Your task to perform on an android device: toggle location history Image 0: 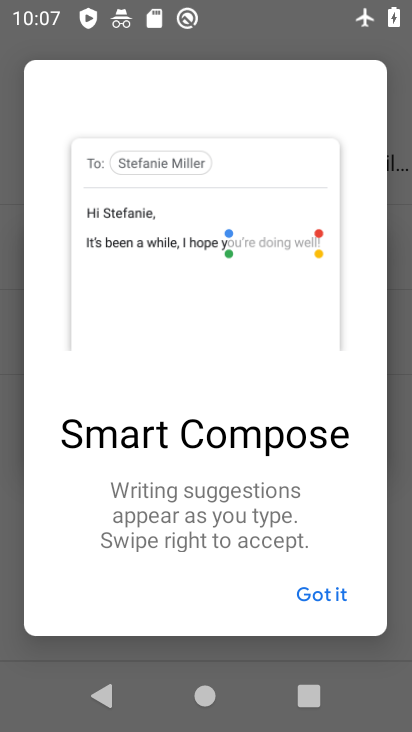
Step 0: press home button
Your task to perform on an android device: toggle location history Image 1: 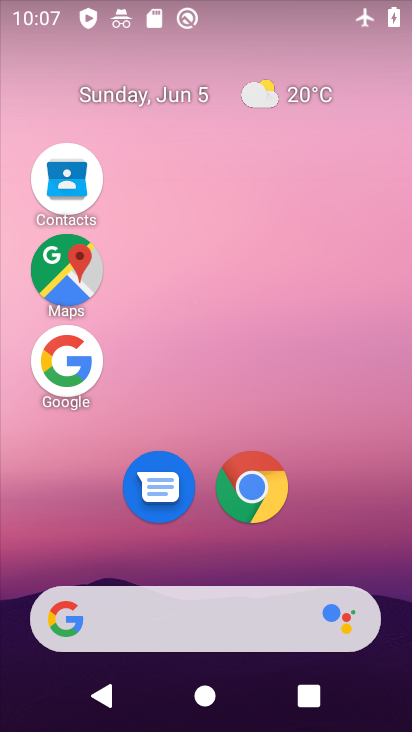
Step 1: drag from (207, 573) to (228, 3)
Your task to perform on an android device: toggle location history Image 2: 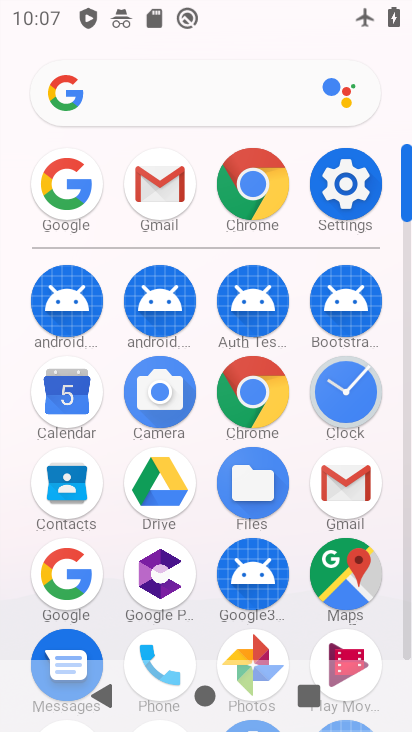
Step 2: click (334, 204)
Your task to perform on an android device: toggle location history Image 3: 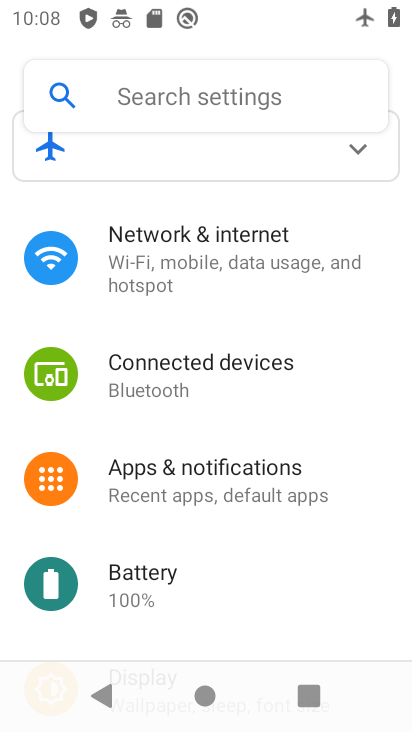
Step 3: drag from (191, 504) to (236, 99)
Your task to perform on an android device: toggle location history Image 4: 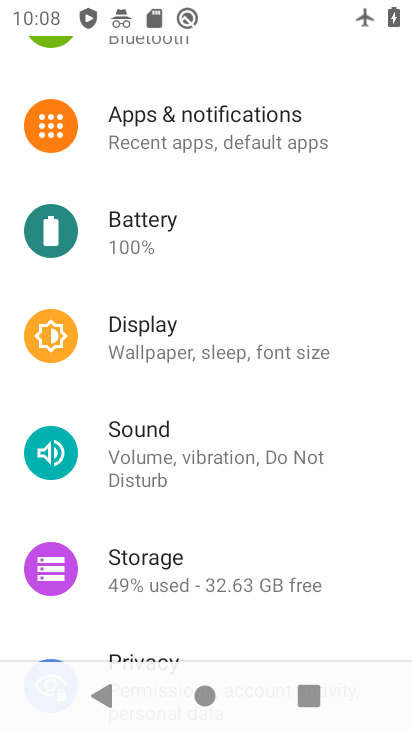
Step 4: drag from (204, 479) to (231, 107)
Your task to perform on an android device: toggle location history Image 5: 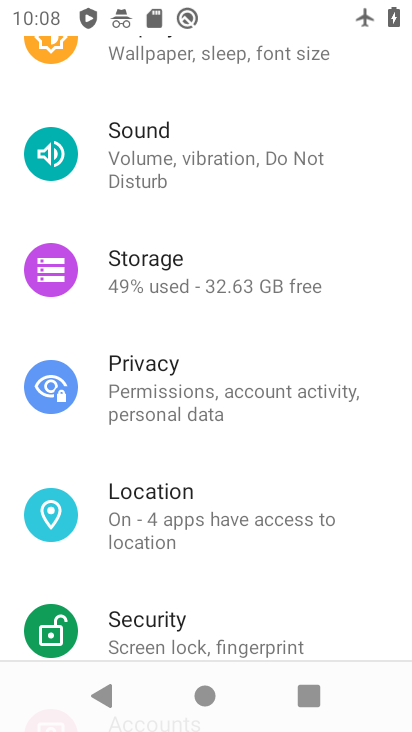
Step 5: click (180, 514)
Your task to perform on an android device: toggle location history Image 6: 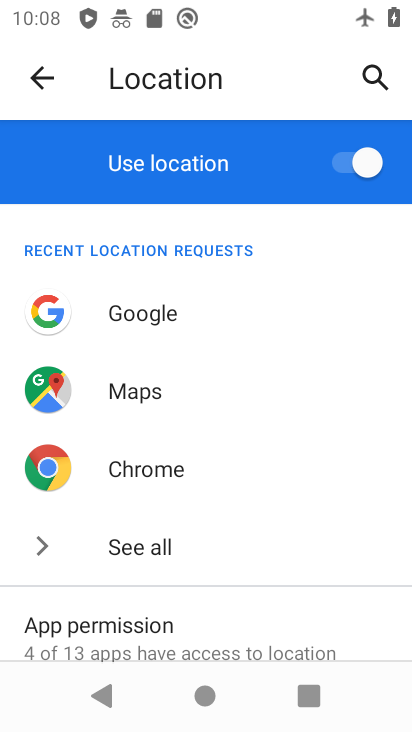
Step 6: drag from (236, 632) to (185, 301)
Your task to perform on an android device: toggle location history Image 7: 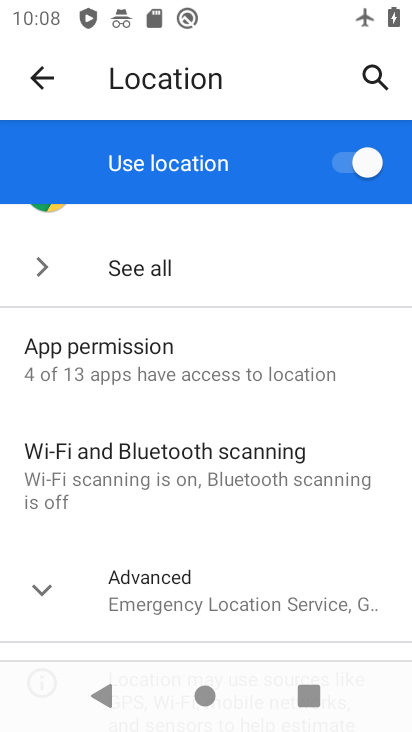
Step 7: click (238, 579)
Your task to perform on an android device: toggle location history Image 8: 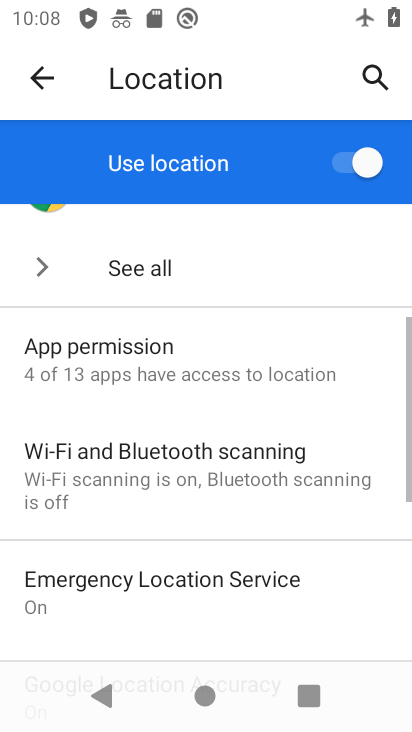
Step 8: drag from (236, 571) to (304, 41)
Your task to perform on an android device: toggle location history Image 9: 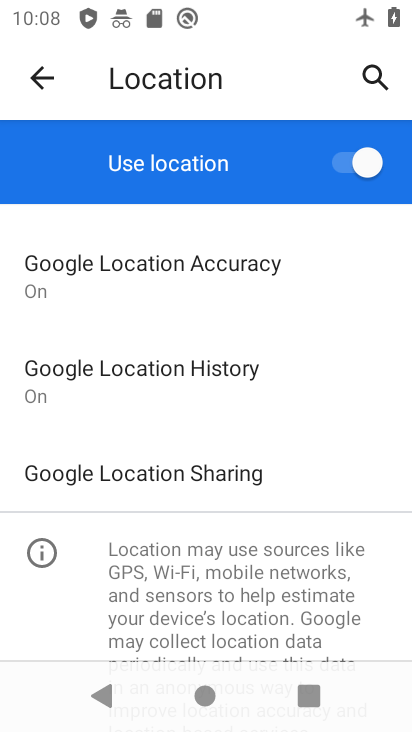
Step 9: click (227, 370)
Your task to perform on an android device: toggle location history Image 10: 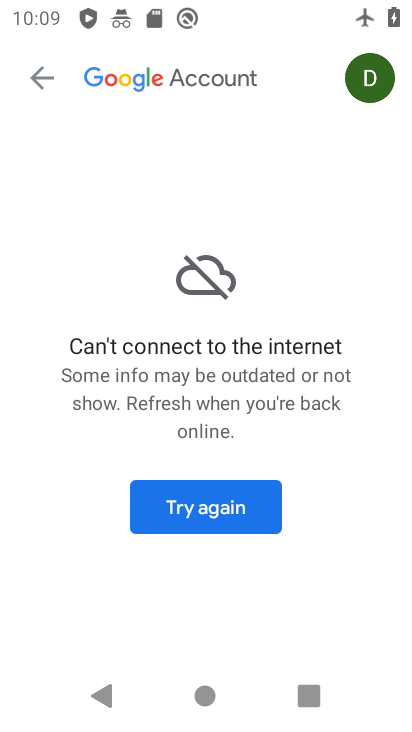
Step 10: click (232, 522)
Your task to perform on an android device: toggle location history Image 11: 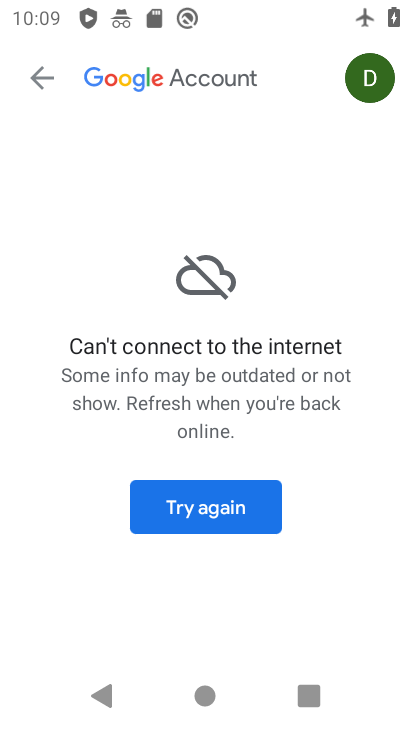
Step 11: task complete